Your task to perform on an android device: Open eBay Image 0: 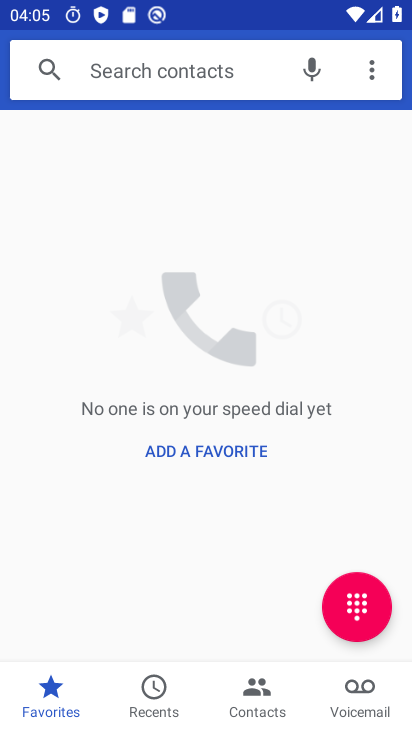
Step 0: press home button
Your task to perform on an android device: Open eBay Image 1: 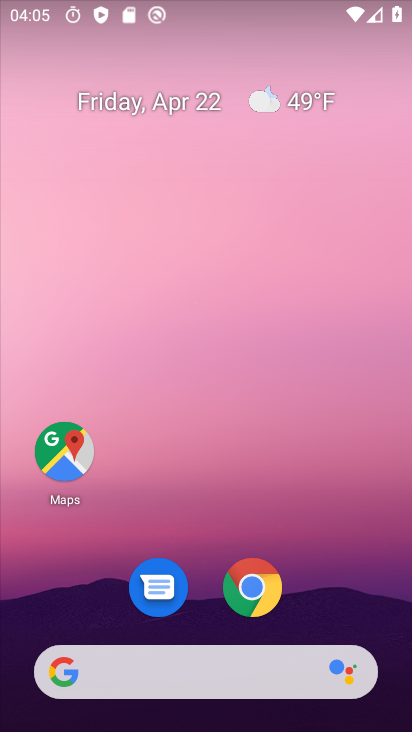
Step 1: click (247, 592)
Your task to perform on an android device: Open eBay Image 2: 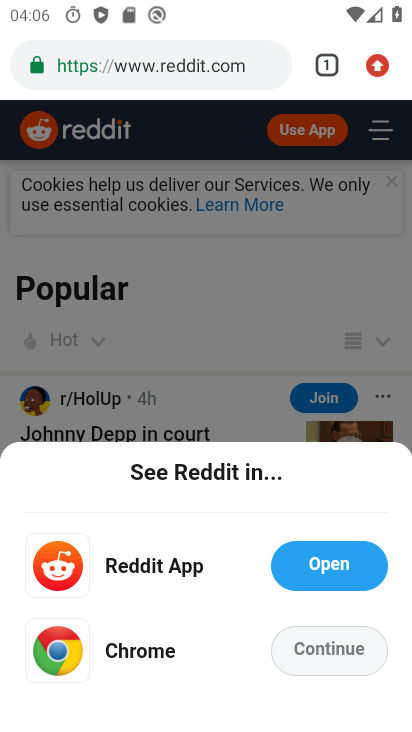
Step 2: click (175, 69)
Your task to perform on an android device: Open eBay Image 3: 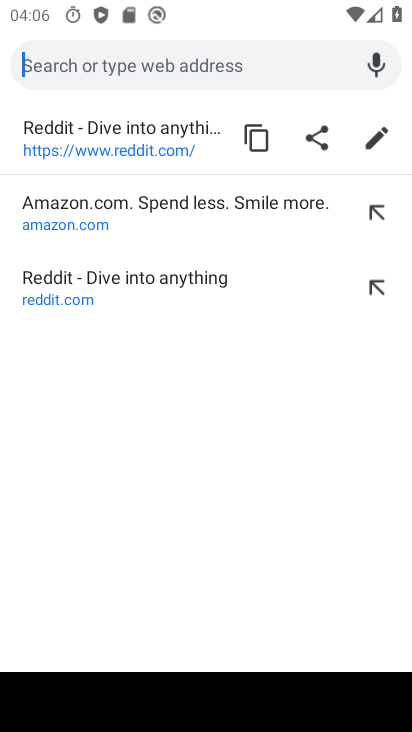
Step 3: type "ebay"
Your task to perform on an android device: Open eBay Image 4: 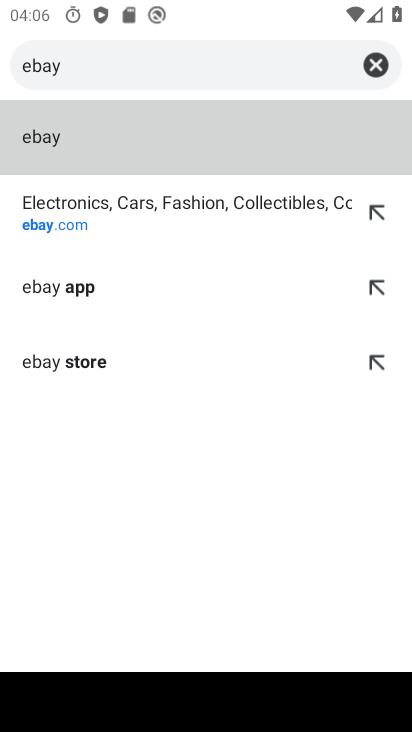
Step 4: click (49, 140)
Your task to perform on an android device: Open eBay Image 5: 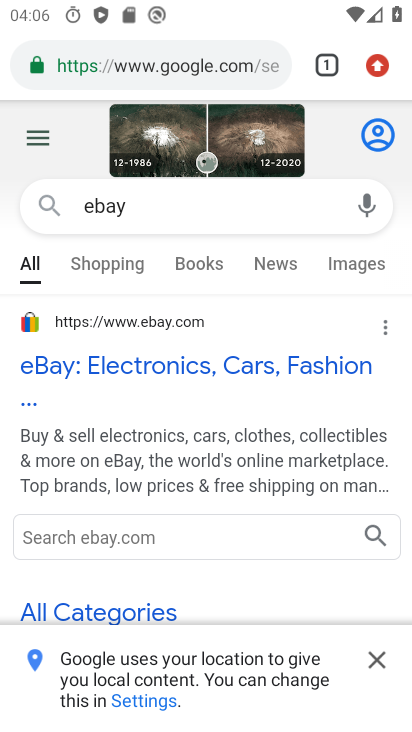
Step 5: click (26, 355)
Your task to perform on an android device: Open eBay Image 6: 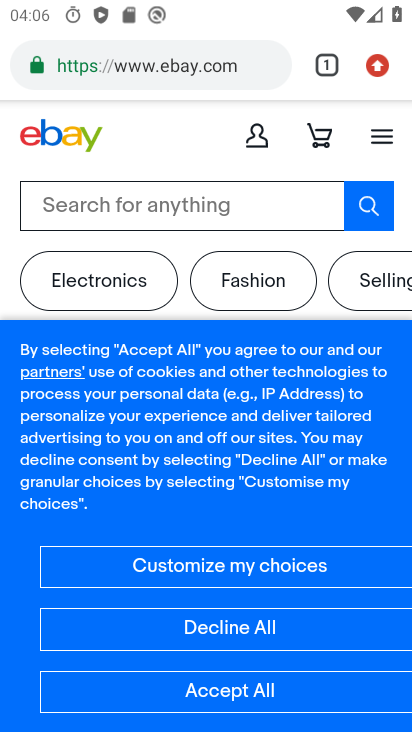
Step 6: task complete